Your task to perform on an android device: turn off improve location accuracy Image 0: 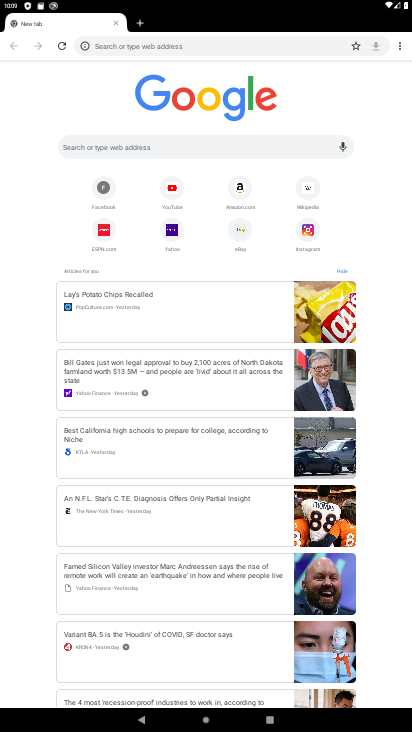
Step 0: press home button
Your task to perform on an android device: turn off improve location accuracy Image 1: 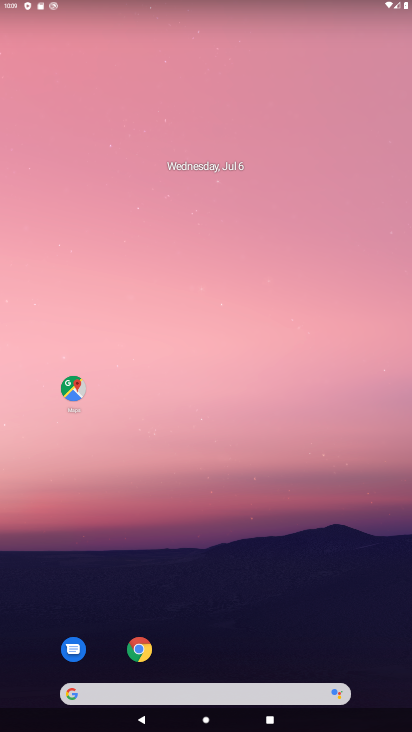
Step 1: drag from (399, 696) to (400, 168)
Your task to perform on an android device: turn off improve location accuracy Image 2: 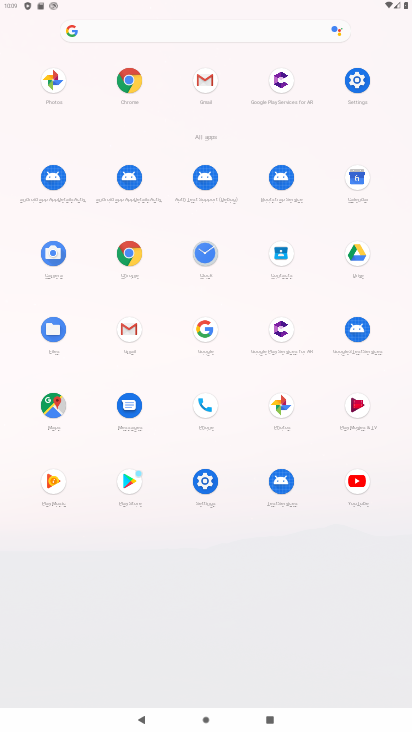
Step 2: click (349, 65)
Your task to perform on an android device: turn off improve location accuracy Image 3: 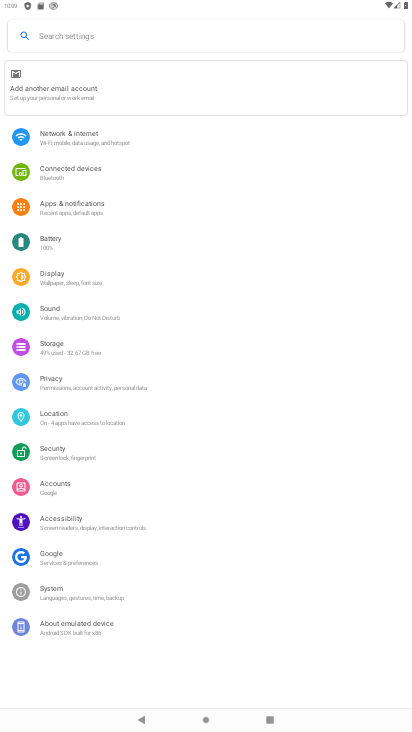
Step 3: click (62, 414)
Your task to perform on an android device: turn off improve location accuracy Image 4: 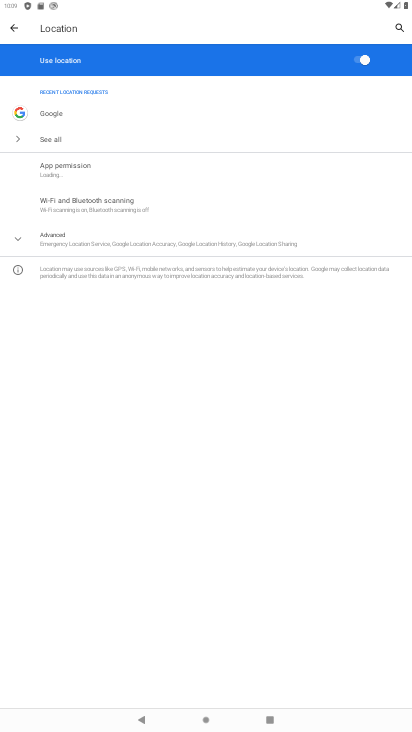
Step 4: click (19, 237)
Your task to perform on an android device: turn off improve location accuracy Image 5: 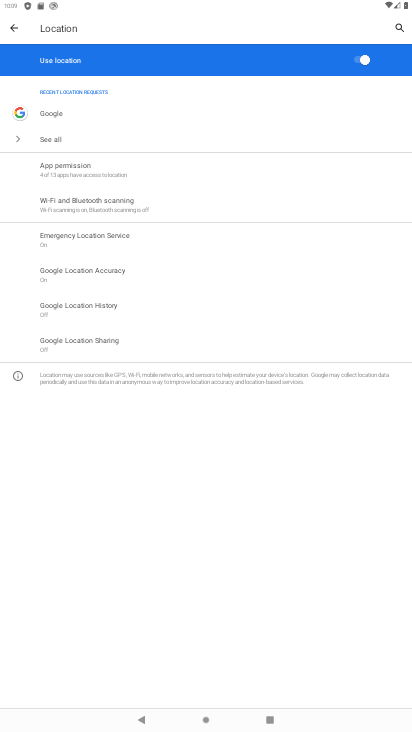
Step 5: click (104, 273)
Your task to perform on an android device: turn off improve location accuracy Image 6: 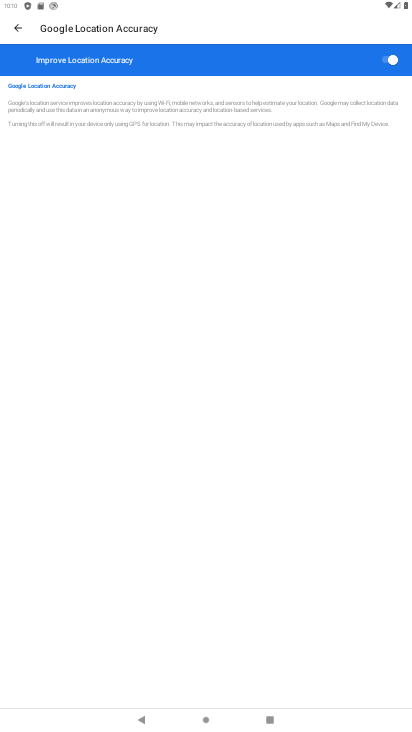
Step 6: click (383, 63)
Your task to perform on an android device: turn off improve location accuracy Image 7: 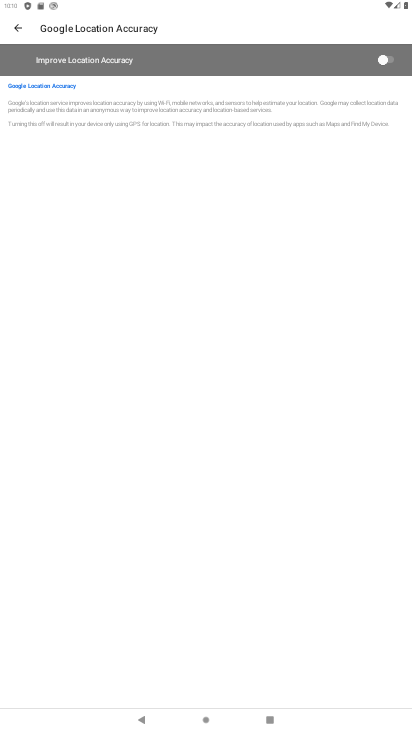
Step 7: task complete